Your task to perform on an android device: What's the weather today? Image 0: 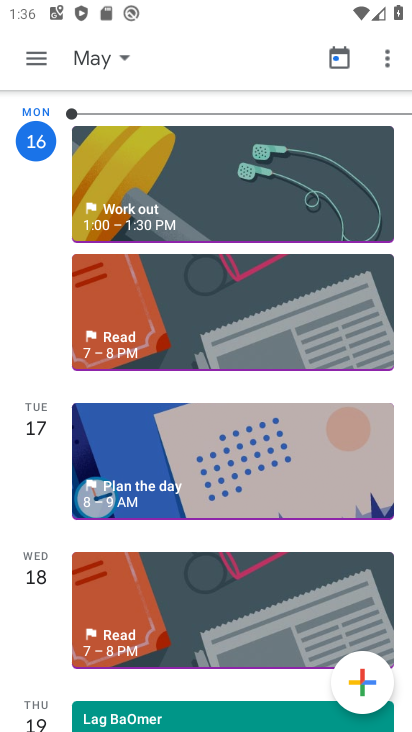
Step 0: press home button
Your task to perform on an android device: What's the weather today? Image 1: 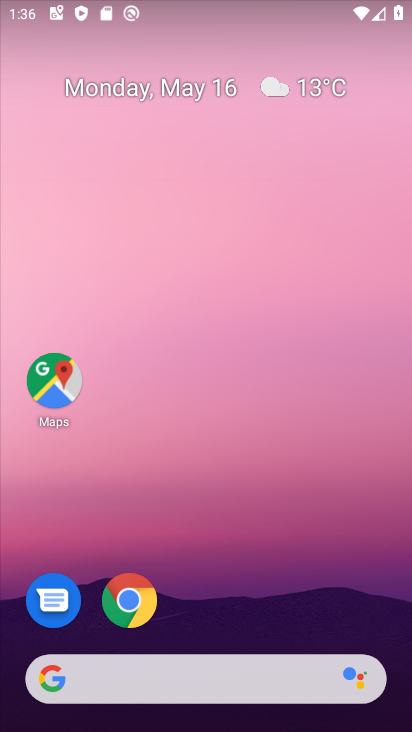
Step 1: click (323, 93)
Your task to perform on an android device: What's the weather today? Image 2: 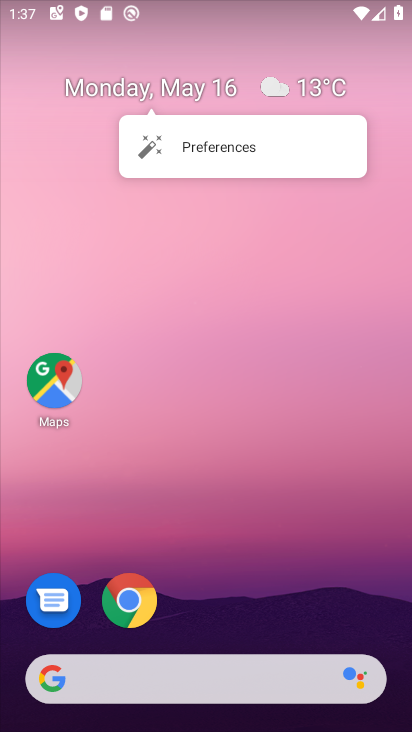
Step 2: click (329, 93)
Your task to perform on an android device: What's the weather today? Image 3: 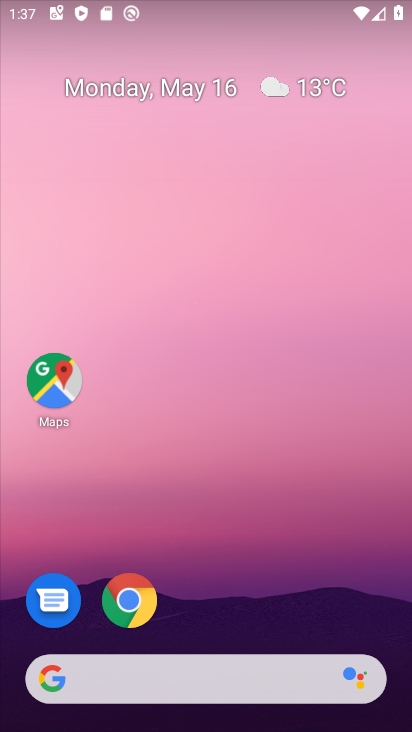
Step 3: click (338, 84)
Your task to perform on an android device: What's the weather today? Image 4: 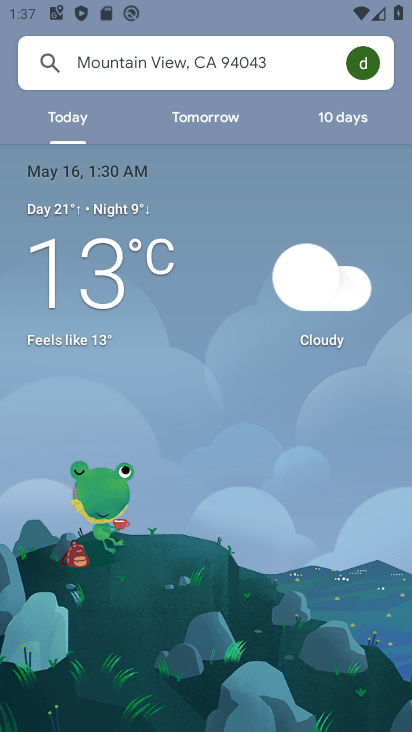
Step 4: task complete